Your task to perform on an android device: What's the weather going to be this weekend? Image 0: 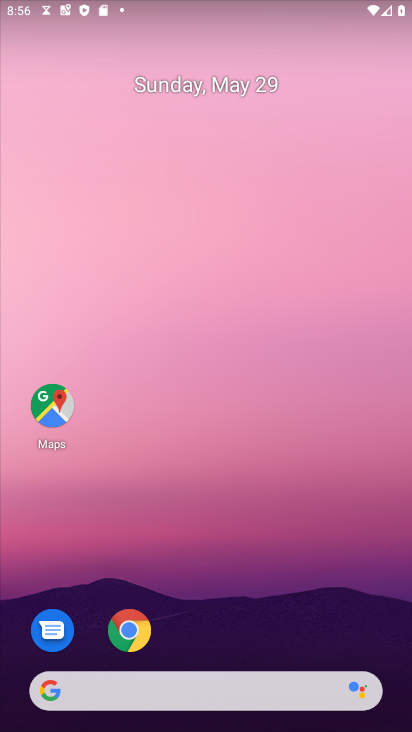
Step 0: click (229, 688)
Your task to perform on an android device: What's the weather going to be this weekend? Image 1: 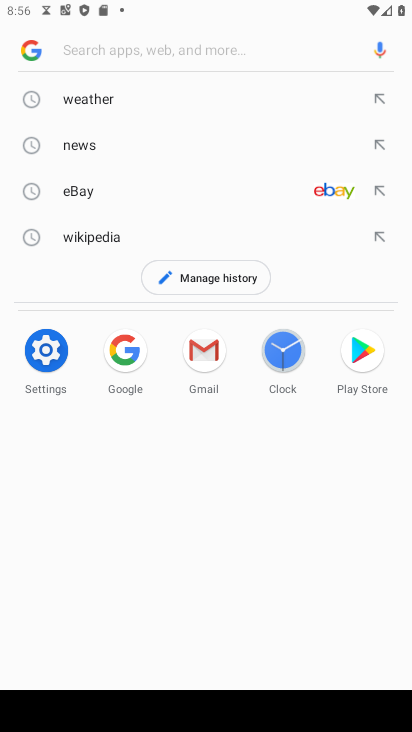
Step 1: click (108, 93)
Your task to perform on an android device: What's the weather going to be this weekend? Image 2: 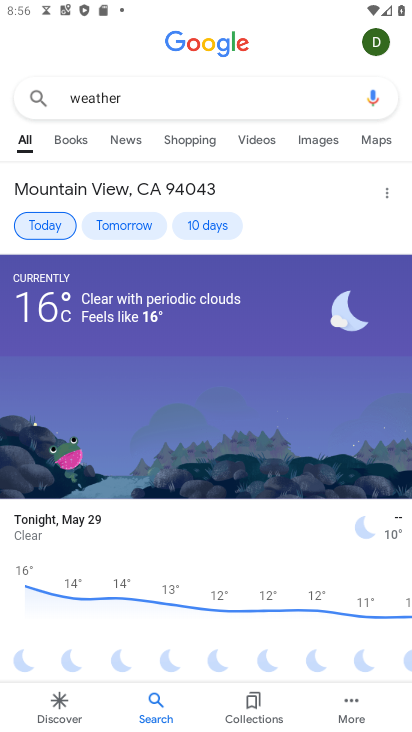
Step 2: click (201, 222)
Your task to perform on an android device: What's the weather going to be this weekend? Image 3: 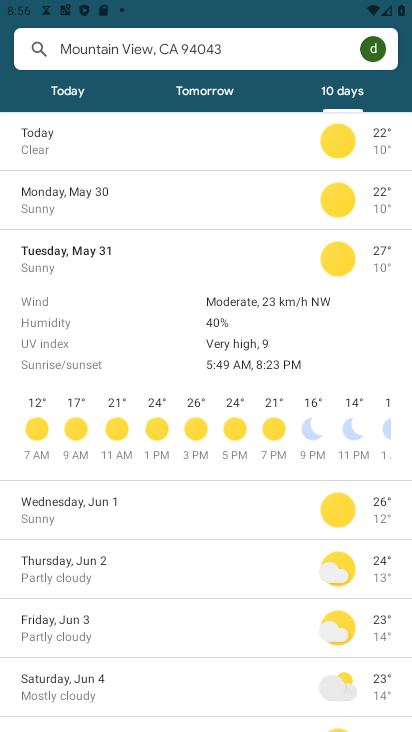
Step 3: task complete